Your task to perform on an android device: Check the weather Image 0: 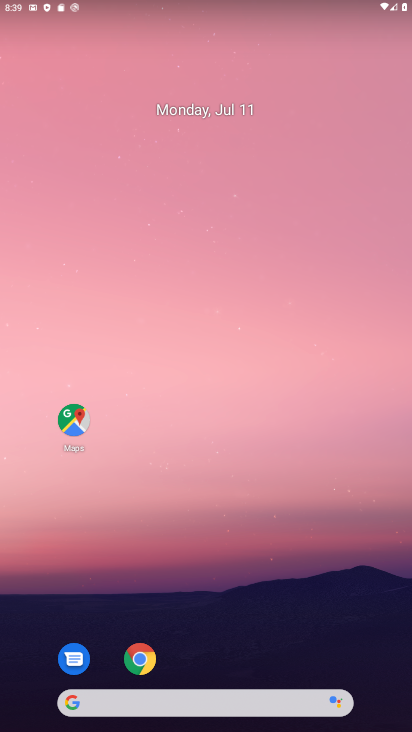
Step 0: drag from (198, 646) to (272, 119)
Your task to perform on an android device: Check the weather Image 1: 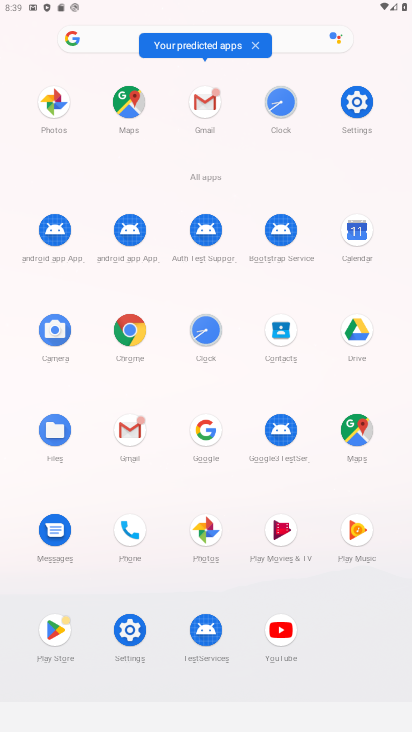
Step 1: click (208, 430)
Your task to perform on an android device: Check the weather Image 2: 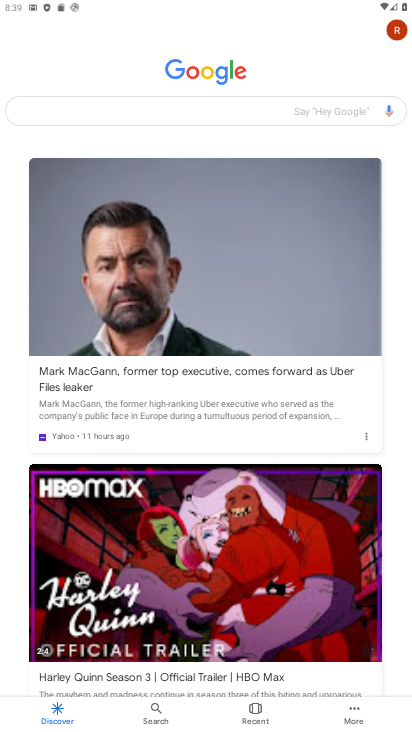
Step 2: click (231, 114)
Your task to perform on an android device: Check the weather Image 3: 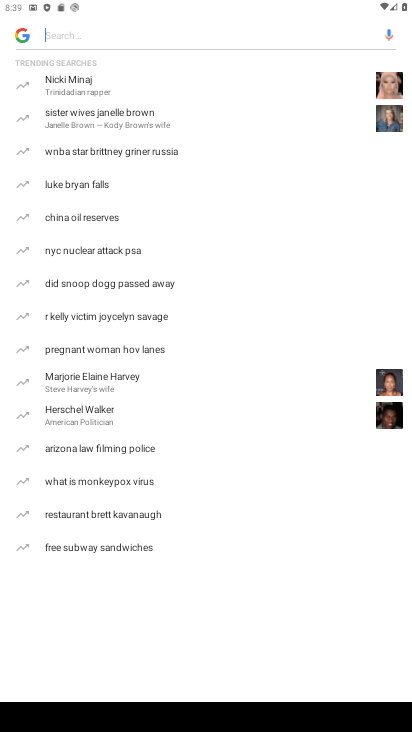
Step 3: type "weather"
Your task to perform on an android device: Check the weather Image 4: 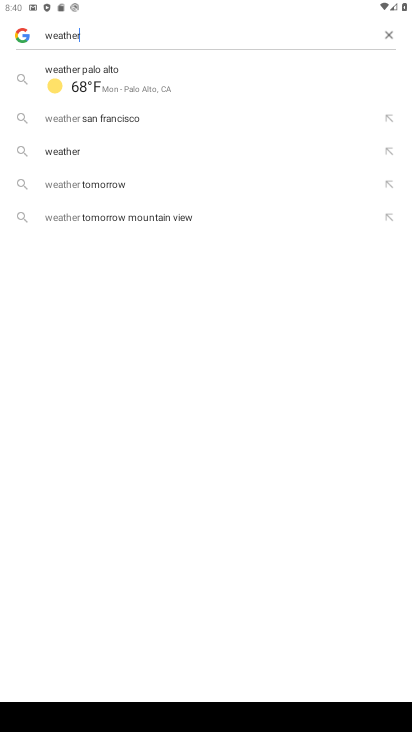
Step 4: click (178, 76)
Your task to perform on an android device: Check the weather Image 5: 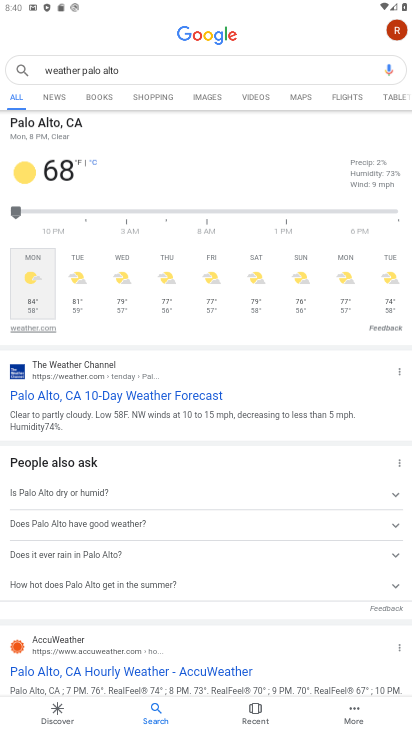
Step 5: task complete